Your task to perform on an android device: clear history in the chrome app Image 0: 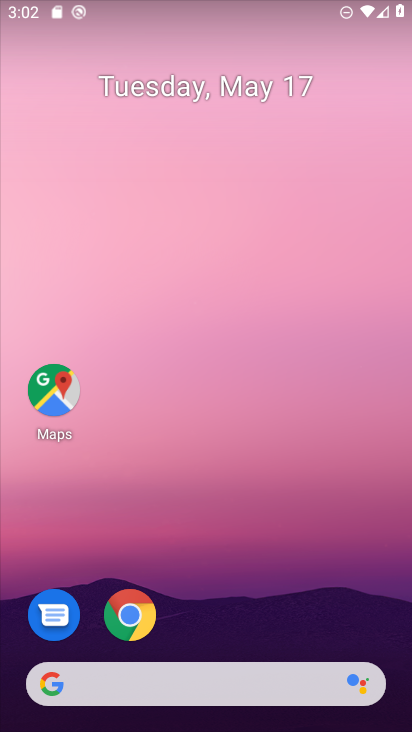
Step 0: click (133, 619)
Your task to perform on an android device: clear history in the chrome app Image 1: 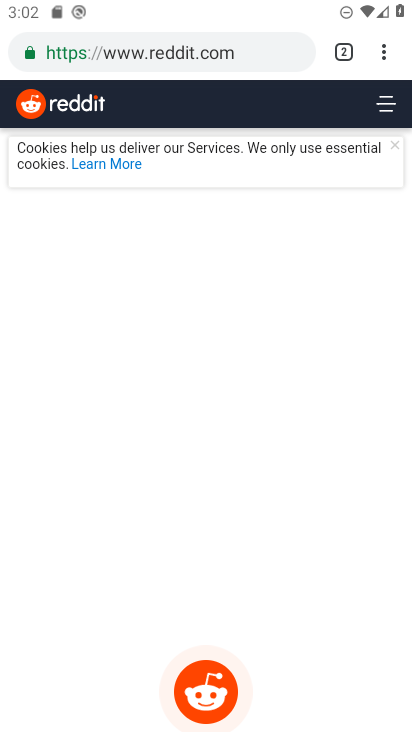
Step 1: click (384, 43)
Your task to perform on an android device: clear history in the chrome app Image 2: 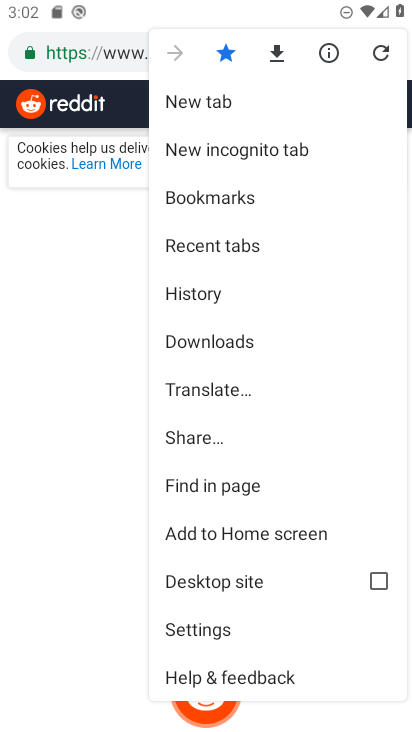
Step 2: click (199, 290)
Your task to perform on an android device: clear history in the chrome app Image 3: 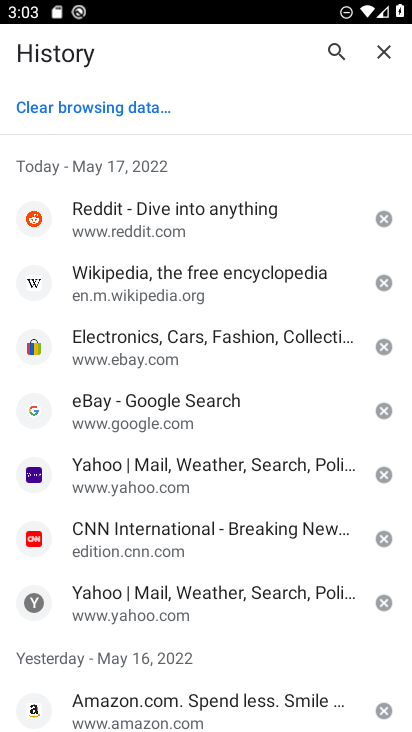
Step 3: click (134, 102)
Your task to perform on an android device: clear history in the chrome app Image 4: 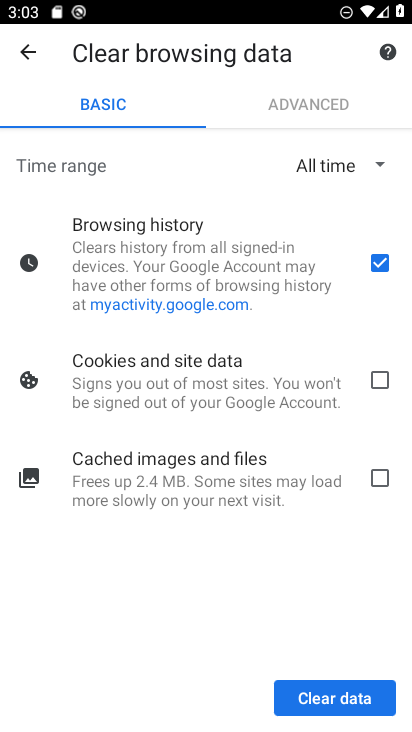
Step 4: click (354, 701)
Your task to perform on an android device: clear history in the chrome app Image 5: 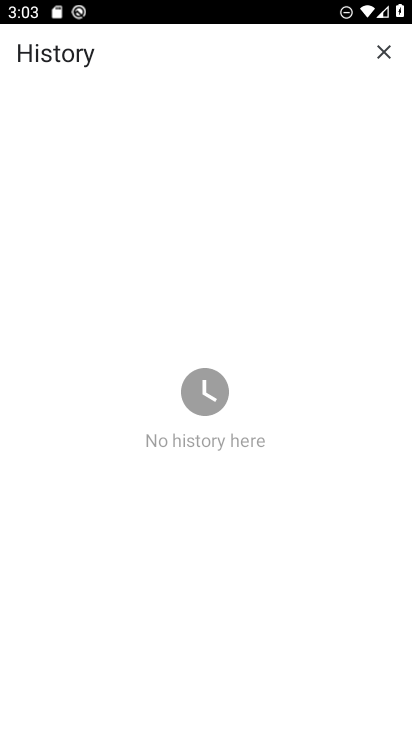
Step 5: task complete